Your task to perform on an android device: Open settings on Google Maps Image 0: 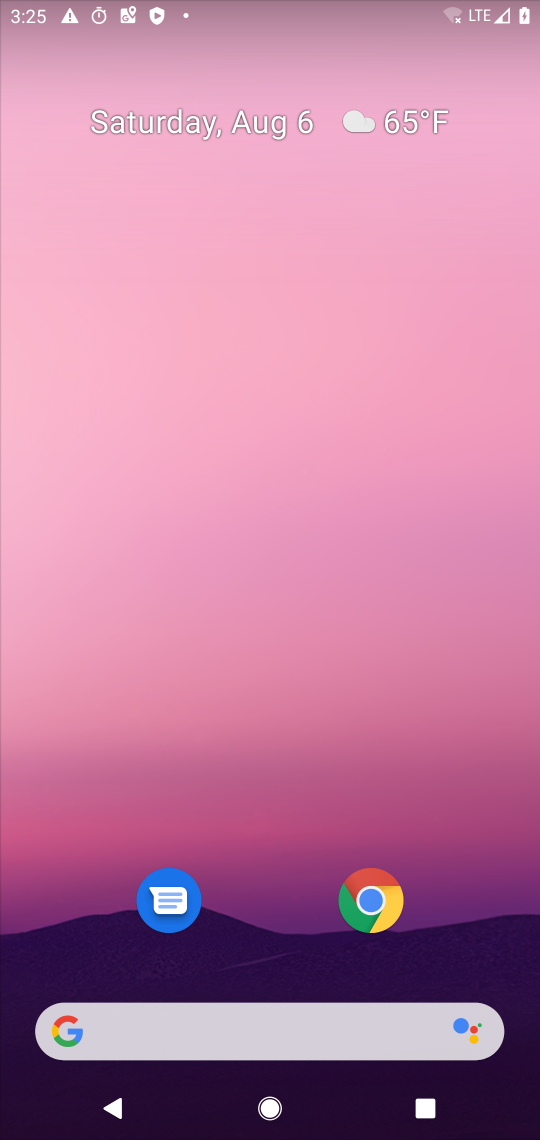
Step 0: press home button
Your task to perform on an android device: Open settings on Google Maps Image 1: 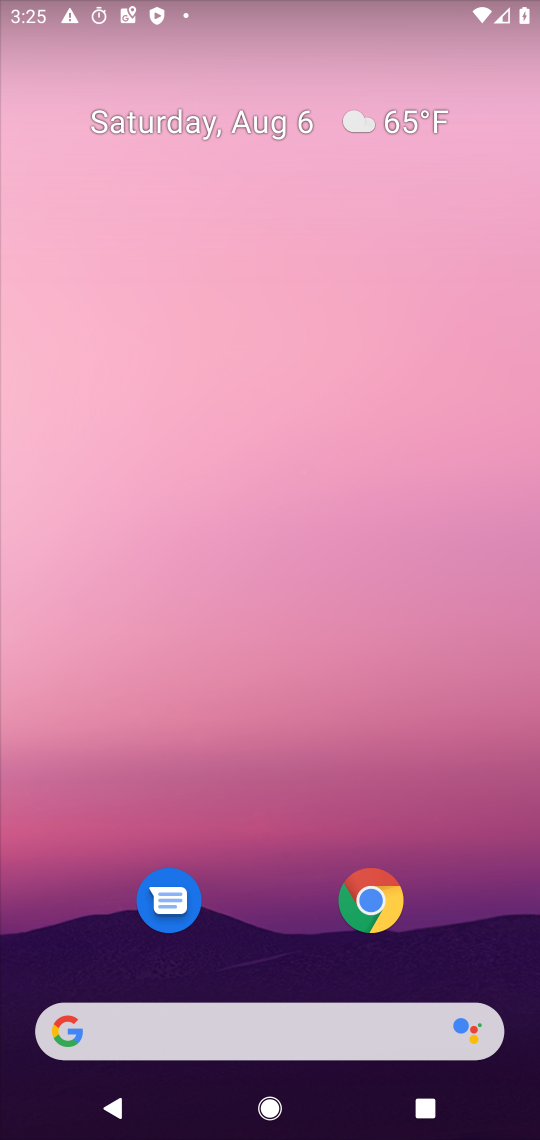
Step 1: drag from (301, 943) to (531, 420)
Your task to perform on an android device: Open settings on Google Maps Image 2: 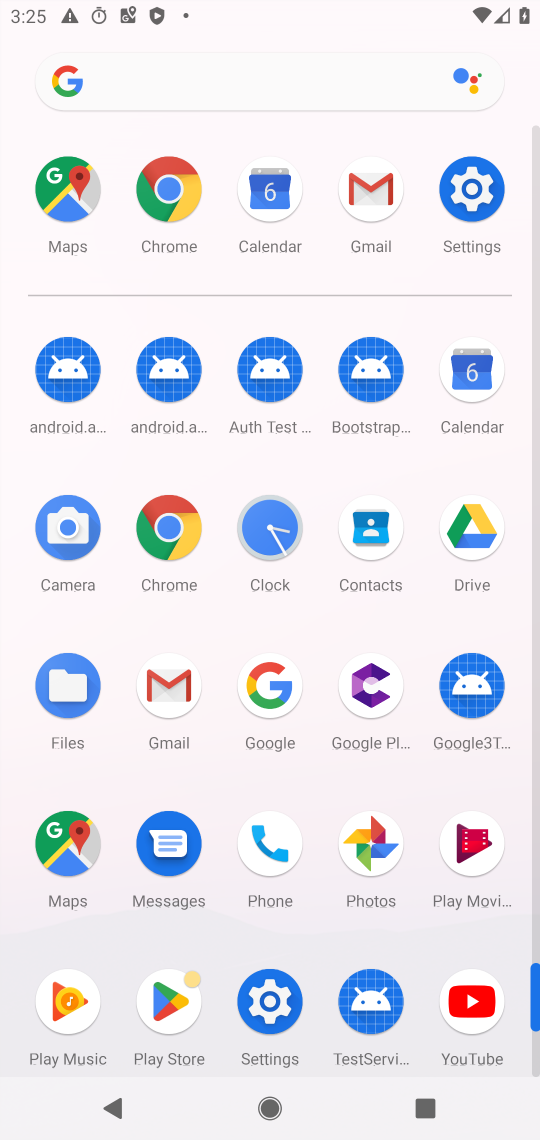
Step 2: click (59, 844)
Your task to perform on an android device: Open settings on Google Maps Image 3: 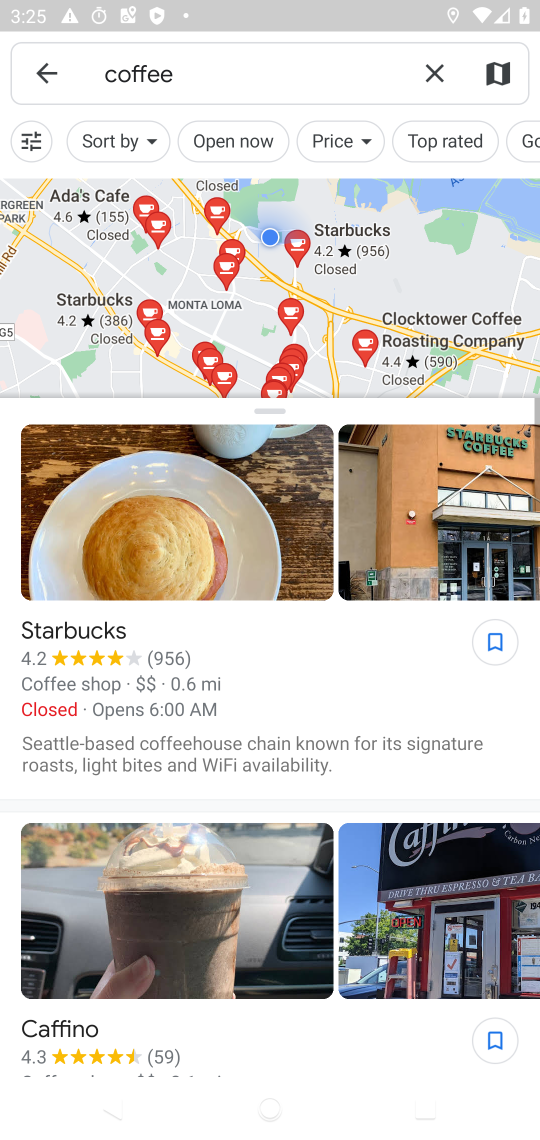
Step 3: click (39, 62)
Your task to perform on an android device: Open settings on Google Maps Image 4: 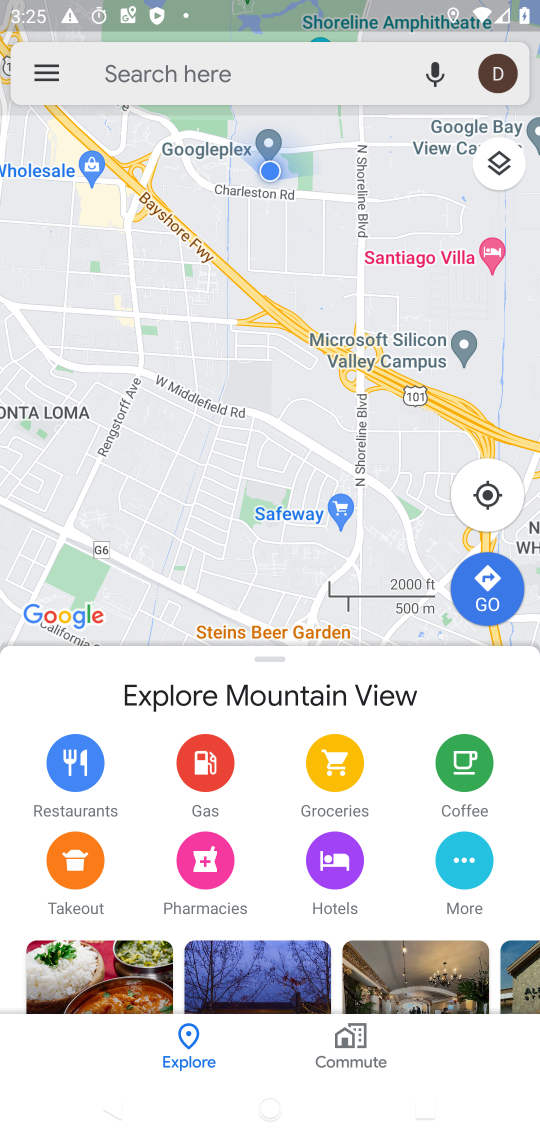
Step 4: click (502, 80)
Your task to perform on an android device: Open settings on Google Maps Image 5: 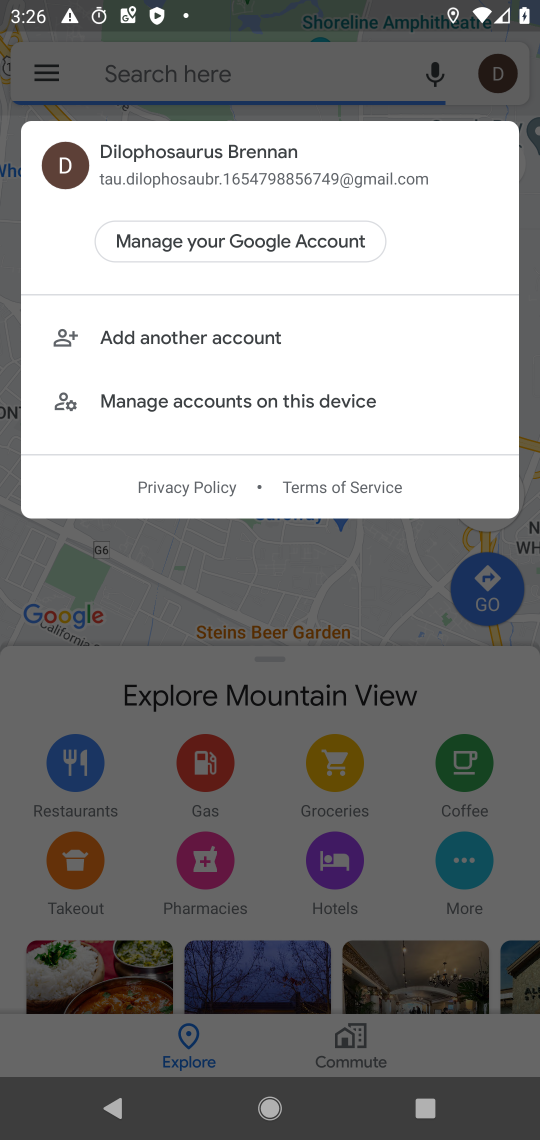
Step 5: click (38, 70)
Your task to perform on an android device: Open settings on Google Maps Image 6: 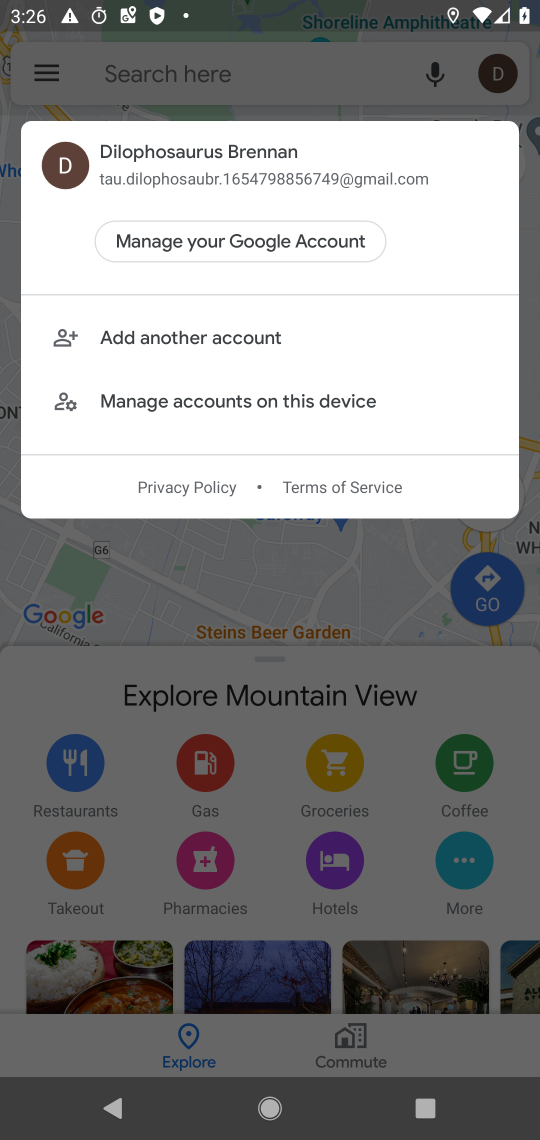
Step 6: click (39, 71)
Your task to perform on an android device: Open settings on Google Maps Image 7: 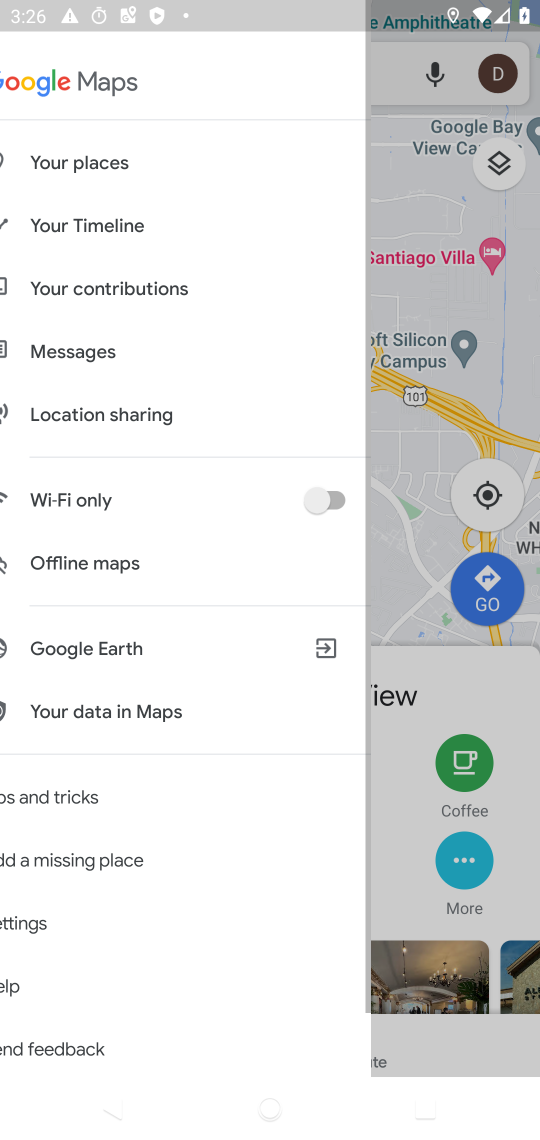
Step 7: click (55, 80)
Your task to perform on an android device: Open settings on Google Maps Image 8: 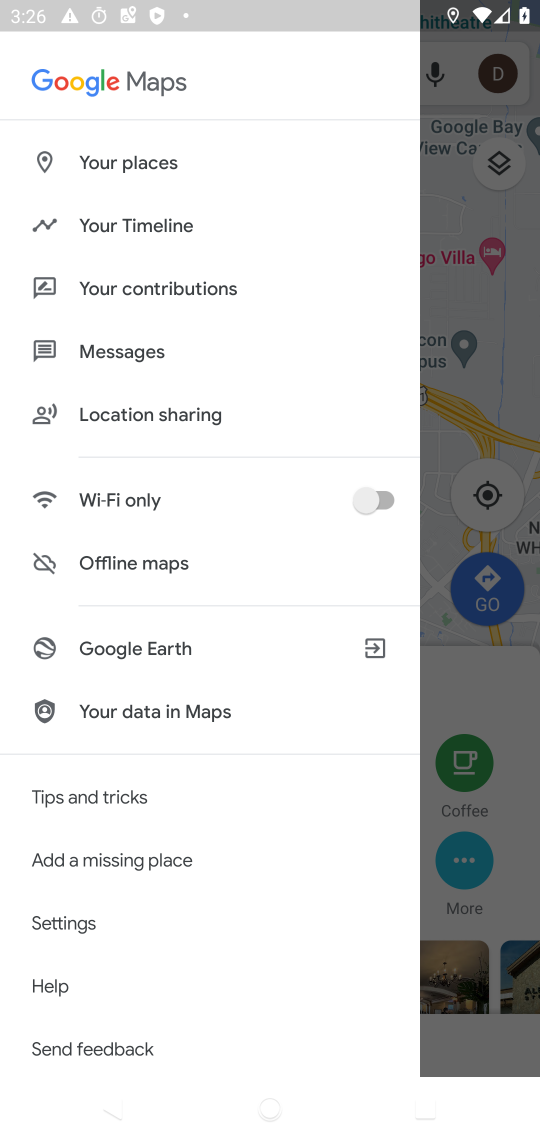
Step 8: click (78, 922)
Your task to perform on an android device: Open settings on Google Maps Image 9: 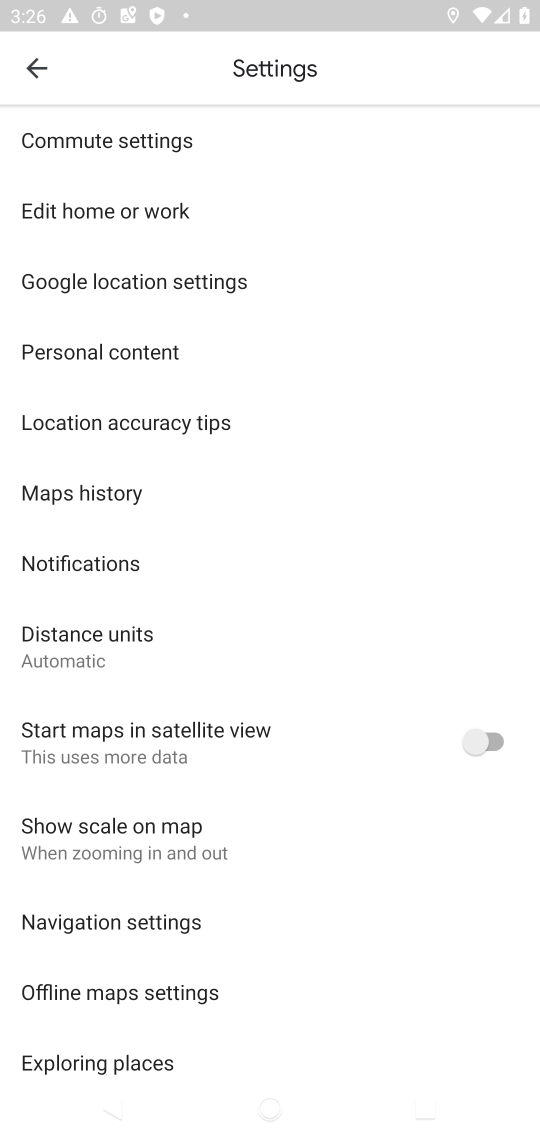
Step 9: task complete